Your task to perform on an android device: Go to privacy settings Image 0: 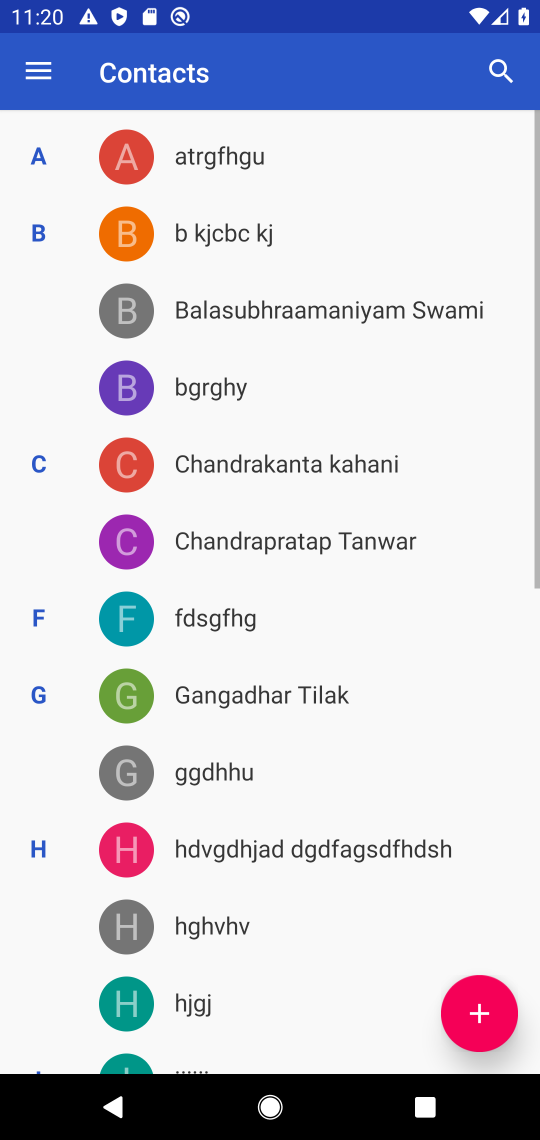
Step 0: press home button
Your task to perform on an android device: Go to privacy settings Image 1: 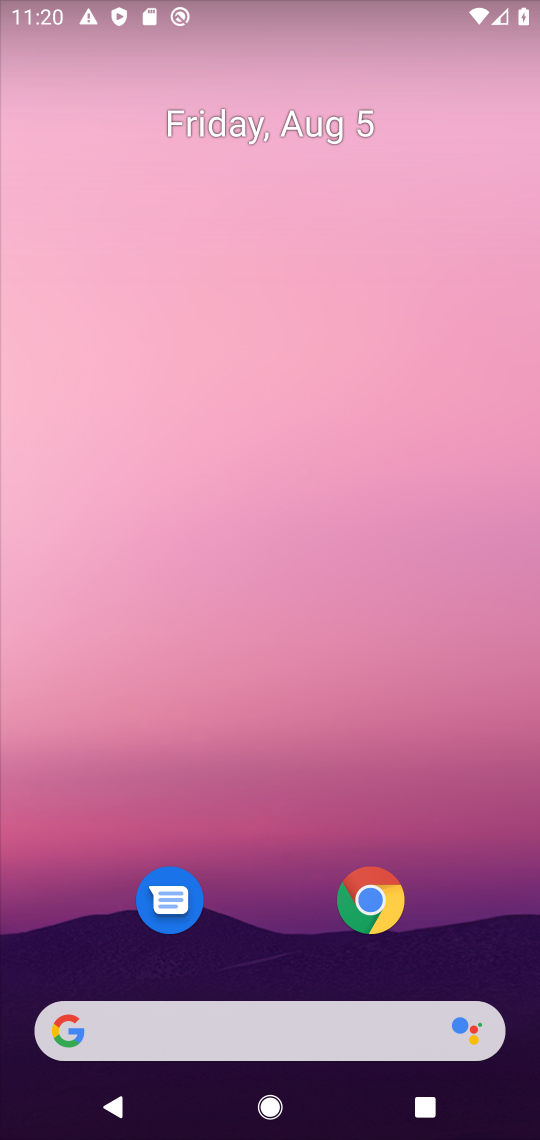
Step 1: drag from (299, 985) to (299, 194)
Your task to perform on an android device: Go to privacy settings Image 2: 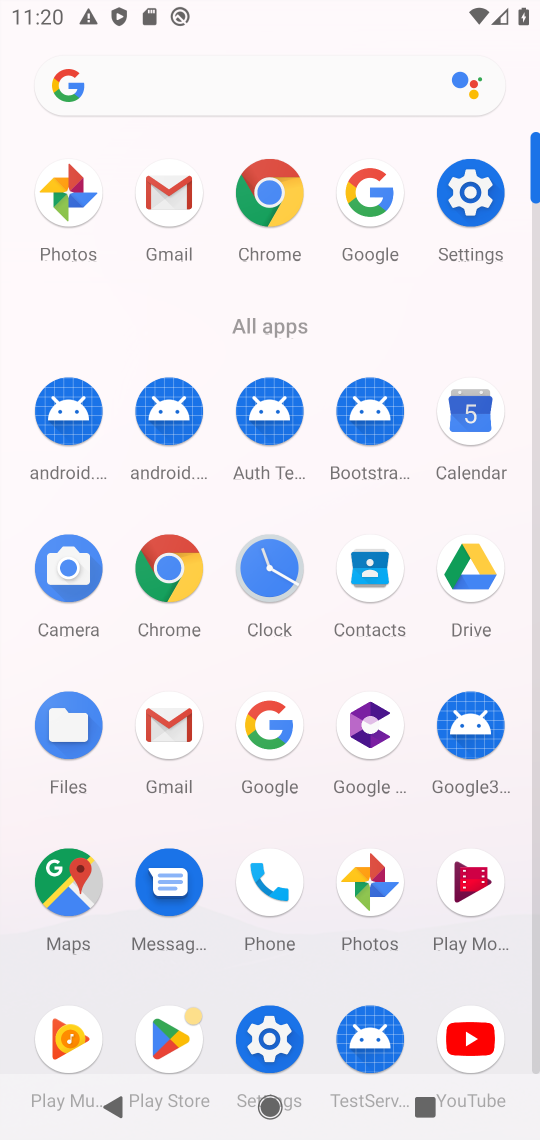
Step 2: click (463, 207)
Your task to perform on an android device: Go to privacy settings Image 3: 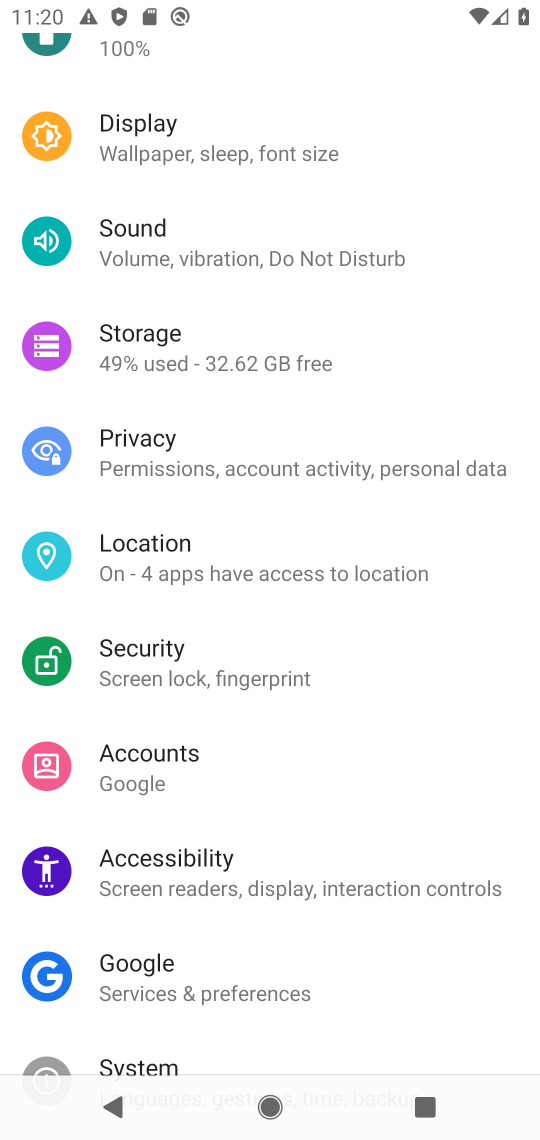
Step 3: click (133, 437)
Your task to perform on an android device: Go to privacy settings Image 4: 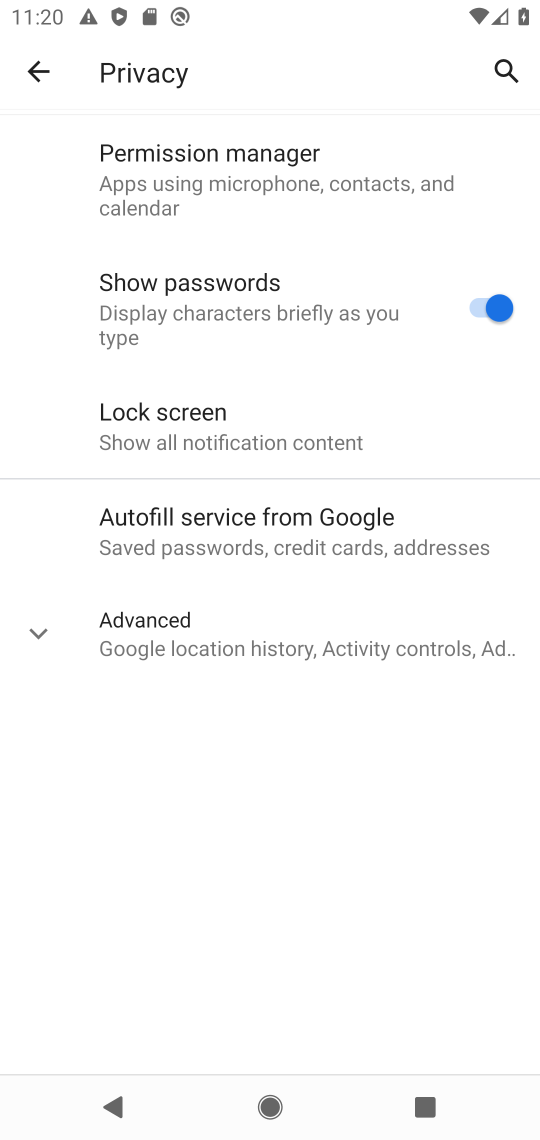
Step 4: task complete